Your task to perform on an android device: add a contact in the contacts app Image 0: 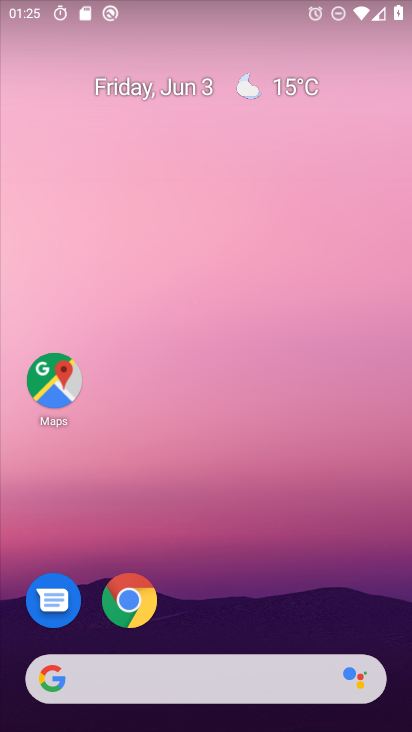
Step 0: drag from (228, 595) to (232, 92)
Your task to perform on an android device: add a contact in the contacts app Image 1: 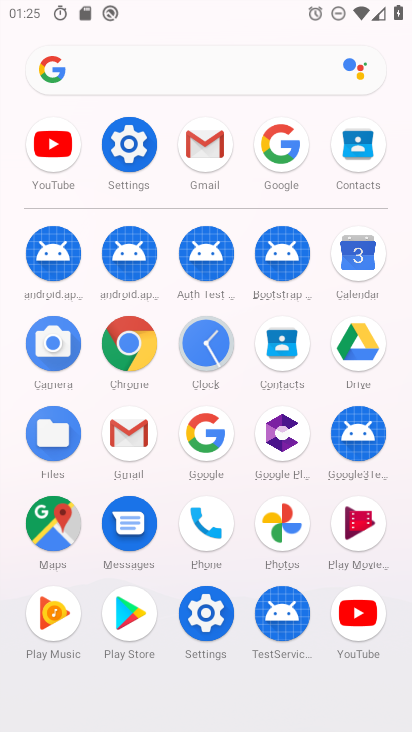
Step 1: click (284, 337)
Your task to perform on an android device: add a contact in the contacts app Image 2: 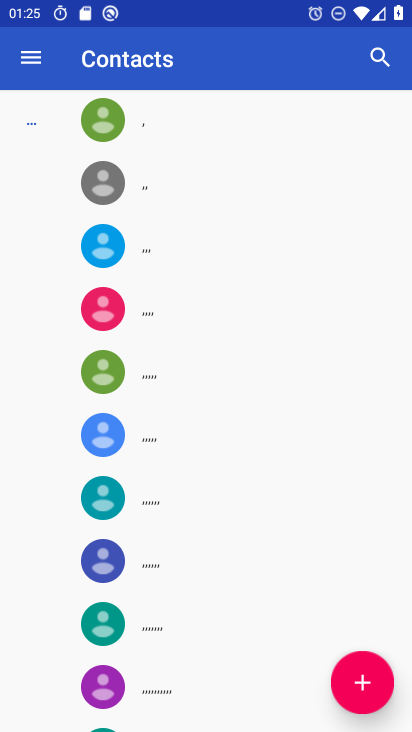
Step 2: click (367, 682)
Your task to perform on an android device: add a contact in the contacts app Image 3: 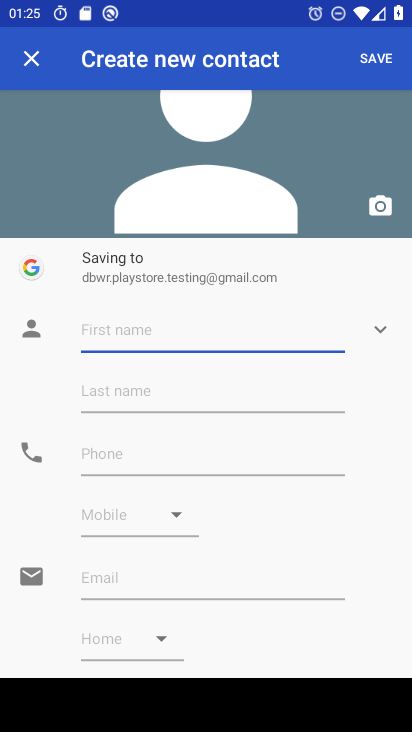
Step 3: type "jkzscjkskj"
Your task to perform on an android device: add a contact in the contacts app Image 4: 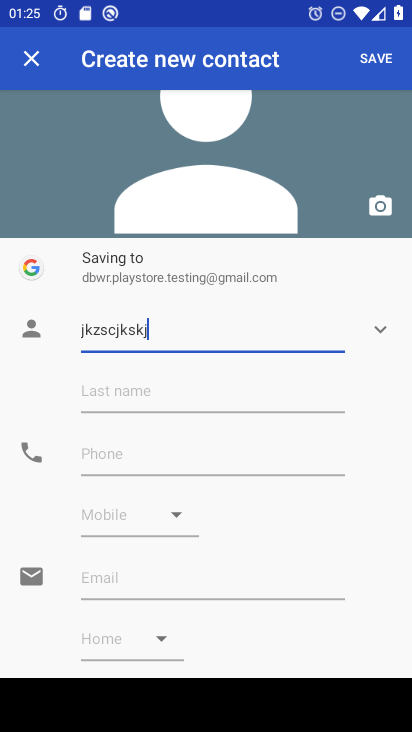
Step 4: click (390, 42)
Your task to perform on an android device: add a contact in the contacts app Image 5: 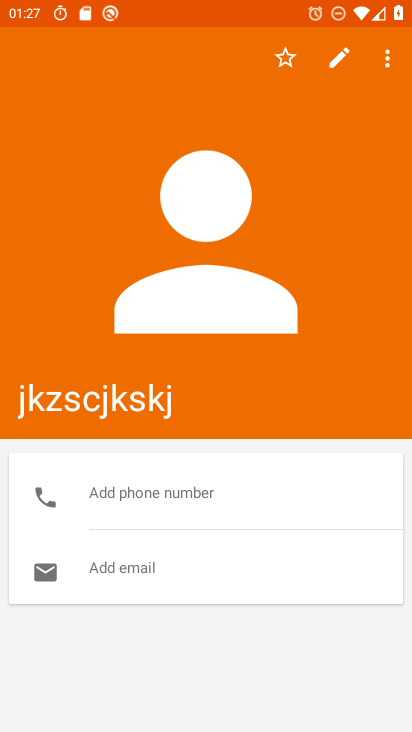
Step 5: task complete